Your task to perform on an android device: toggle wifi Image 0: 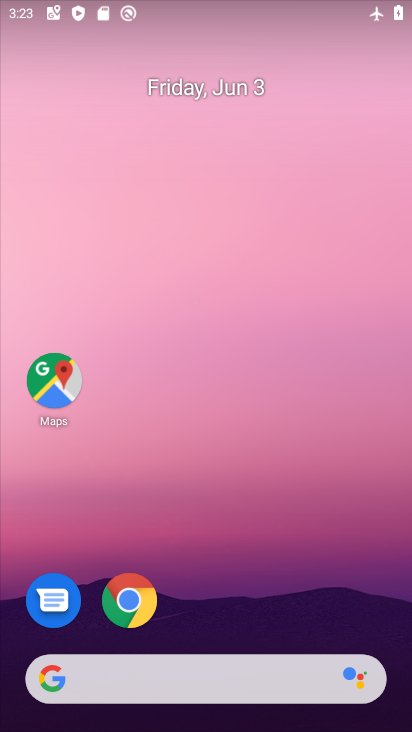
Step 0: drag from (264, 600) to (326, 123)
Your task to perform on an android device: toggle wifi Image 1: 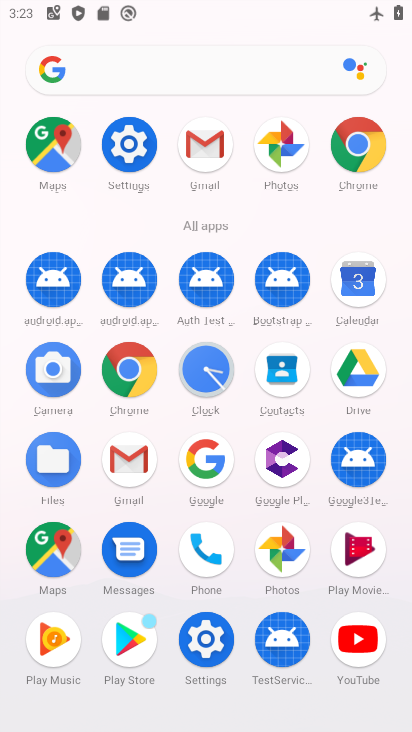
Step 1: click (130, 148)
Your task to perform on an android device: toggle wifi Image 2: 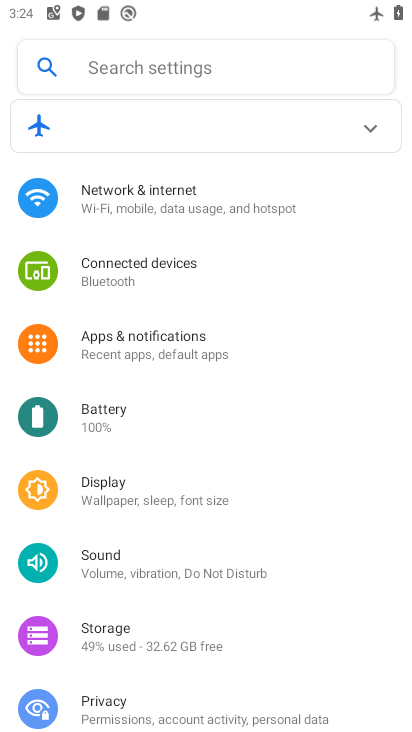
Step 2: click (194, 206)
Your task to perform on an android device: toggle wifi Image 3: 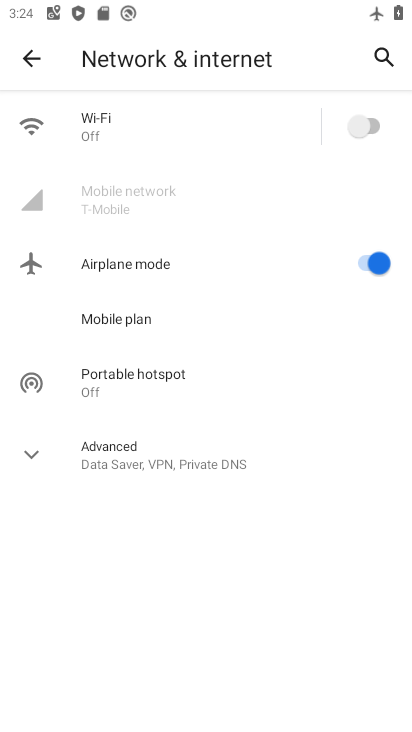
Step 3: click (383, 130)
Your task to perform on an android device: toggle wifi Image 4: 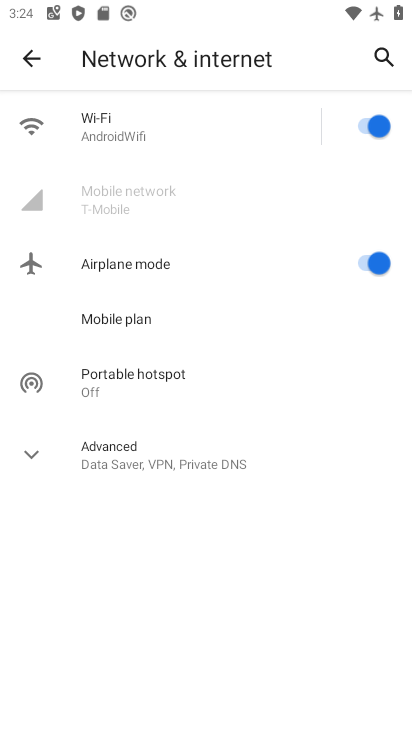
Step 4: task complete